Your task to perform on an android device: Search for seafood restaurants on Google Maps Image 0: 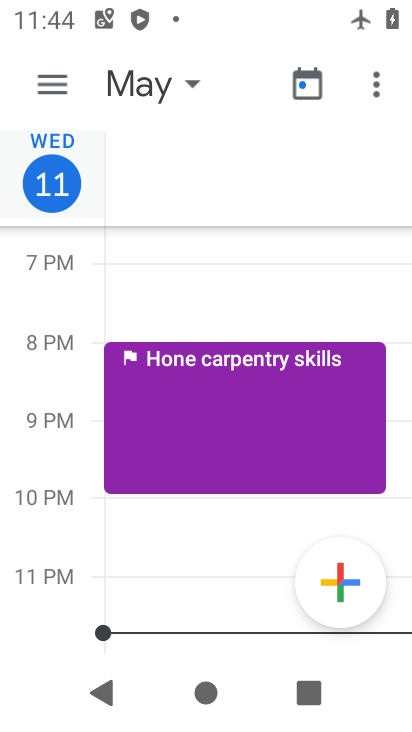
Step 0: drag from (194, 592) to (231, 216)
Your task to perform on an android device: Search for seafood restaurants on Google Maps Image 1: 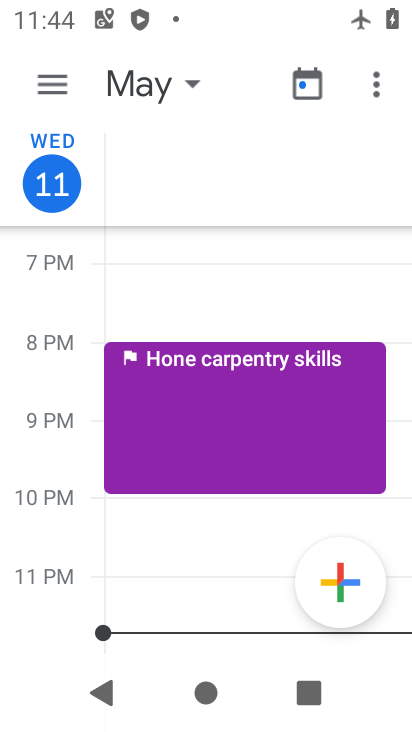
Step 1: press home button
Your task to perform on an android device: Search for seafood restaurants on Google Maps Image 2: 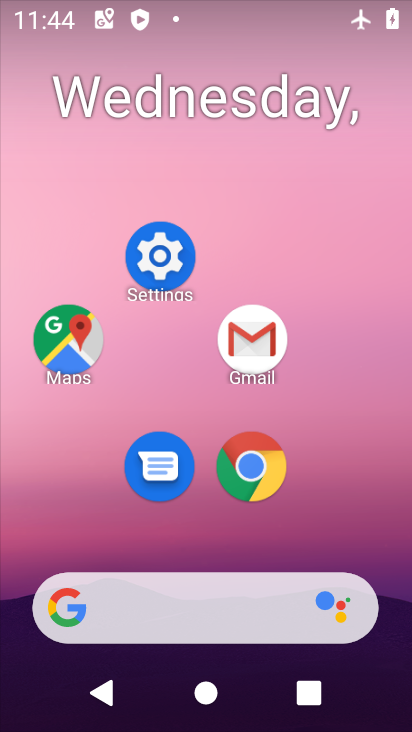
Step 2: drag from (200, 552) to (228, 177)
Your task to perform on an android device: Search for seafood restaurants on Google Maps Image 3: 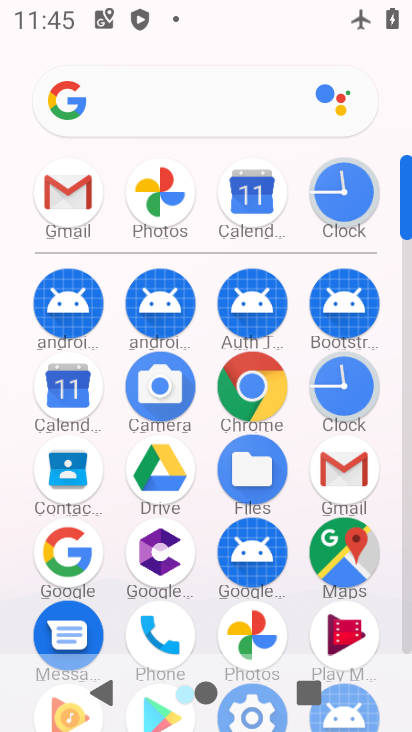
Step 3: drag from (205, 566) to (210, 341)
Your task to perform on an android device: Search for seafood restaurants on Google Maps Image 4: 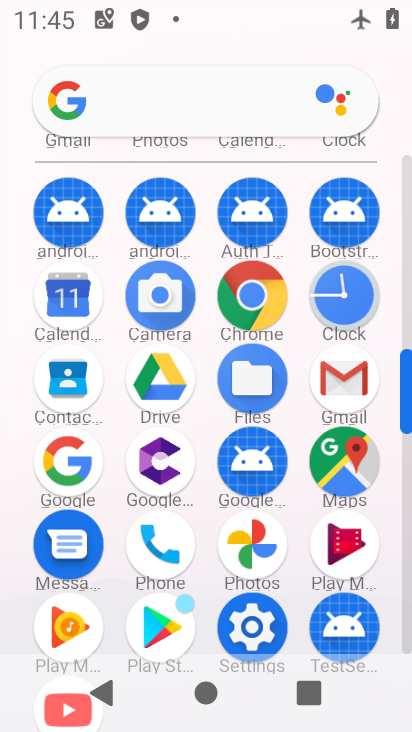
Step 4: click (345, 475)
Your task to perform on an android device: Search for seafood restaurants on Google Maps Image 5: 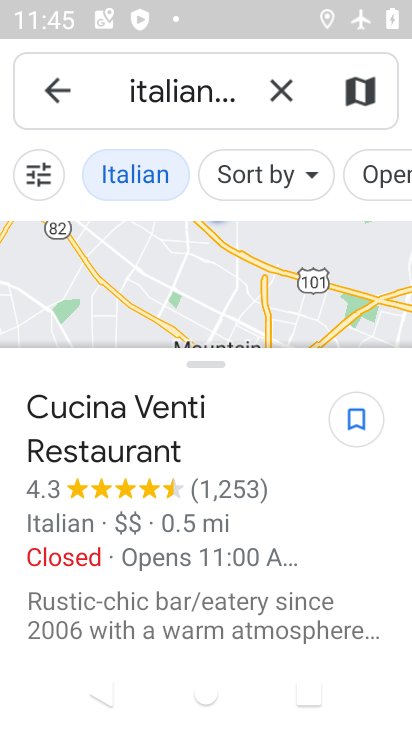
Step 5: click (287, 97)
Your task to perform on an android device: Search for seafood restaurants on Google Maps Image 6: 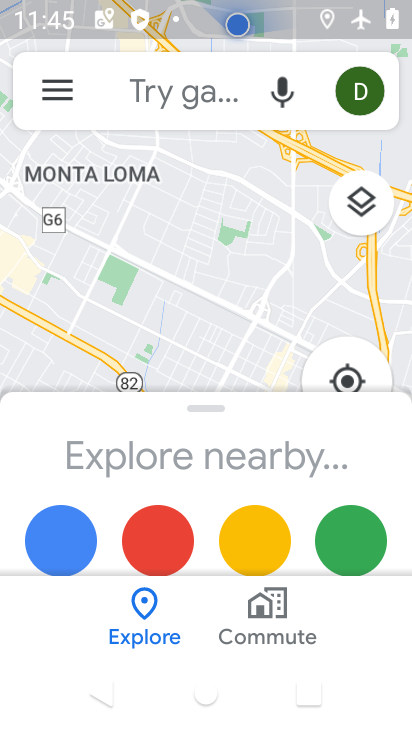
Step 6: click (171, 104)
Your task to perform on an android device: Search for seafood restaurants on Google Maps Image 7: 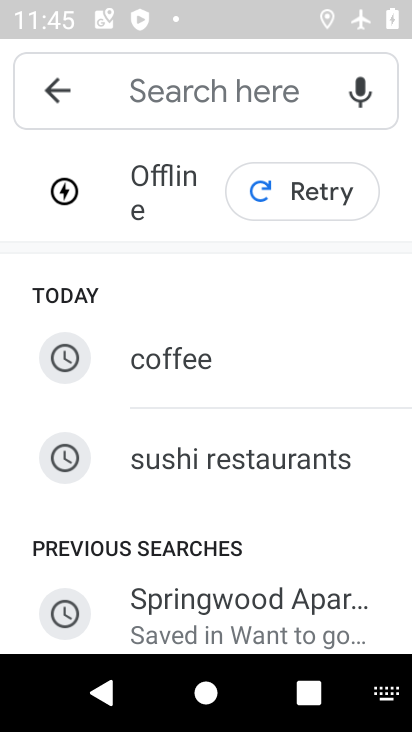
Step 7: type "seafood restaurants"
Your task to perform on an android device: Search for seafood restaurants on Google Maps Image 8: 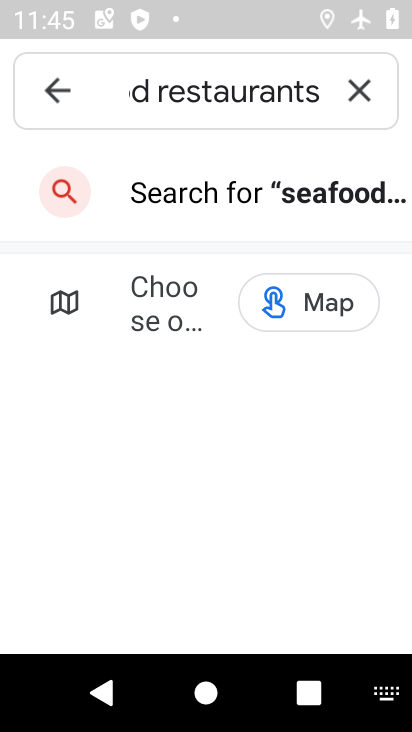
Step 8: click (302, 193)
Your task to perform on an android device: Search for seafood restaurants on Google Maps Image 9: 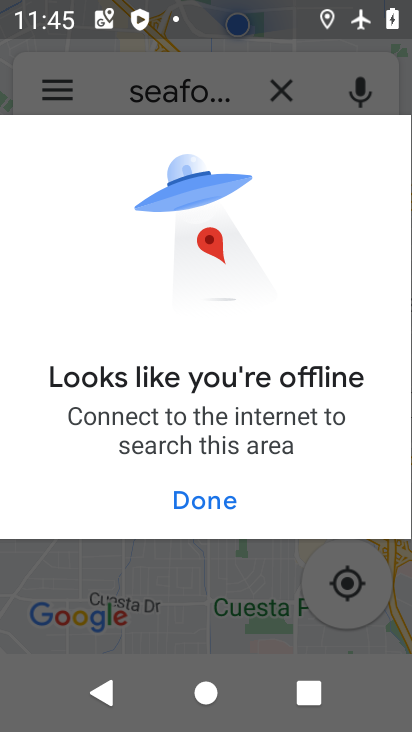
Step 9: click (182, 508)
Your task to perform on an android device: Search for seafood restaurants on Google Maps Image 10: 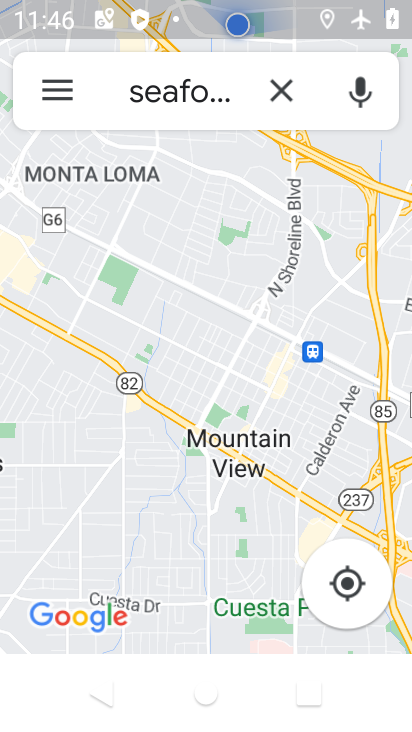
Step 10: task complete